Your task to perform on an android device: create a new album in the google photos Image 0: 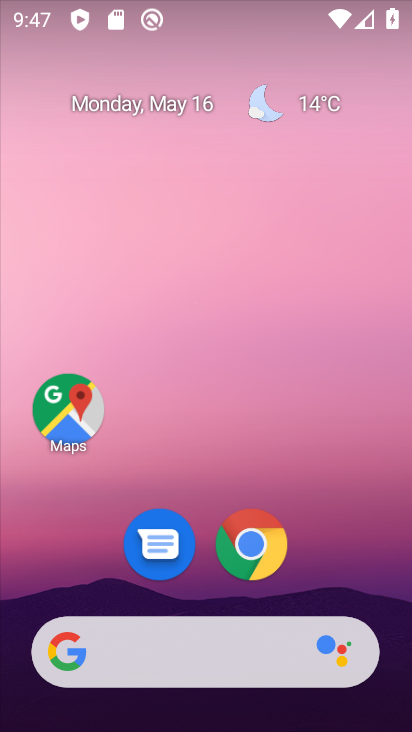
Step 0: drag from (344, 503) to (401, 185)
Your task to perform on an android device: create a new album in the google photos Image 1: 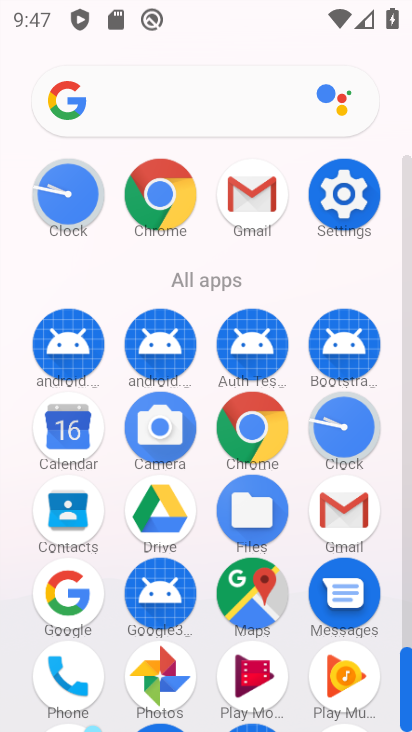
Step 1: click (161, 660)
Your task to perform on an android device: create a new album in the google photos Image 2: 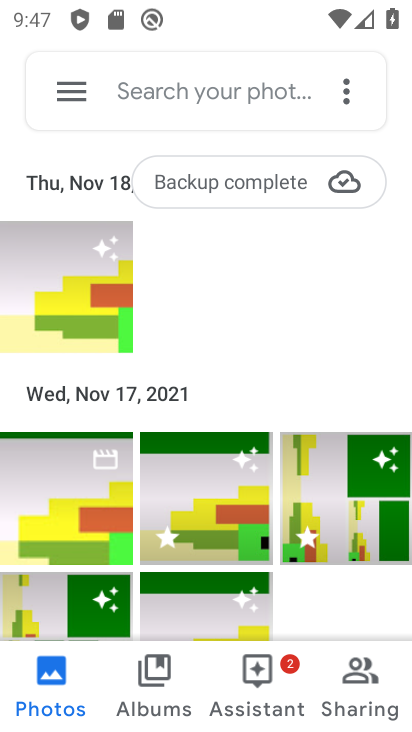
Step 2: click (375, 680)
Your task to perform on an android device: create a new album in the google photos Image 3: 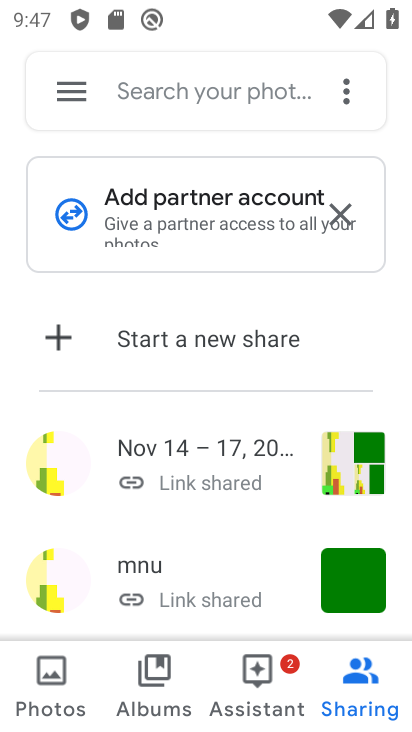
Step 3: click (342, 93)
Your task to perform on an android device: create a new album in the google photos Image 4: 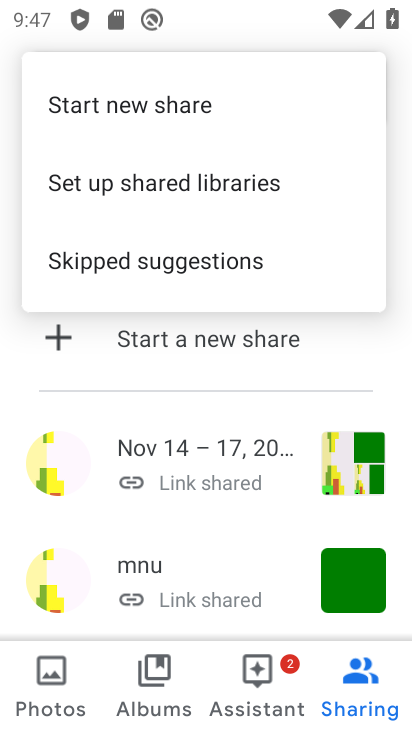
Step 4: click (150, 669)
Your task to perform on an android device: create a new album in the google photos Image 5: 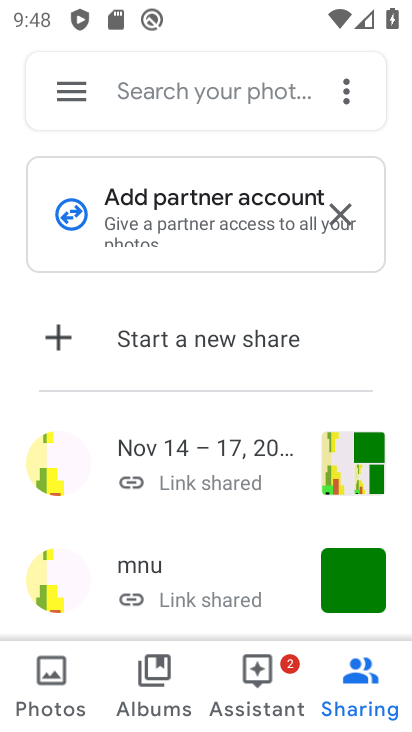
Step 5: click (164, 672)
Your task to perform on an android device: create a new album in the google photos Image 6: 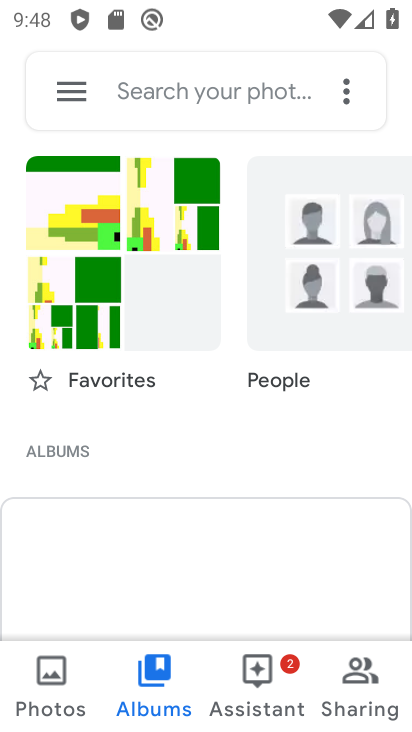
Step 6: drag from (247, 564) to (303, 278)
Your task to perform on an android device: create a new album in the google photos Image 7: 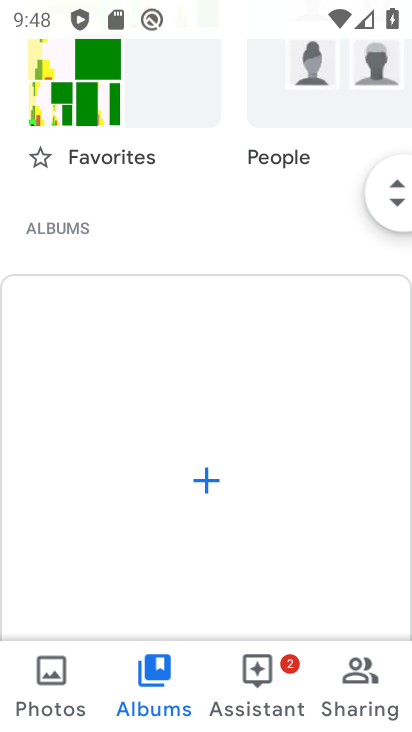
Step 7: click (211, 479)
Your task to perform on an android device: create a new album in the google photos Image 8: 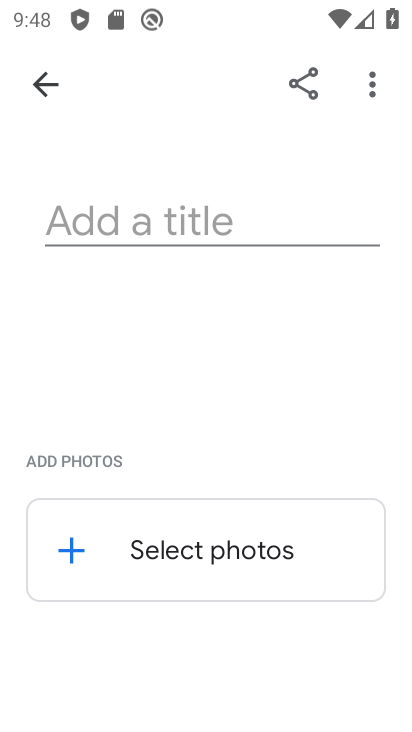
Step 8: click (203, 228)
Your task to perform on an android device: create a new album in the google photos Image 9: 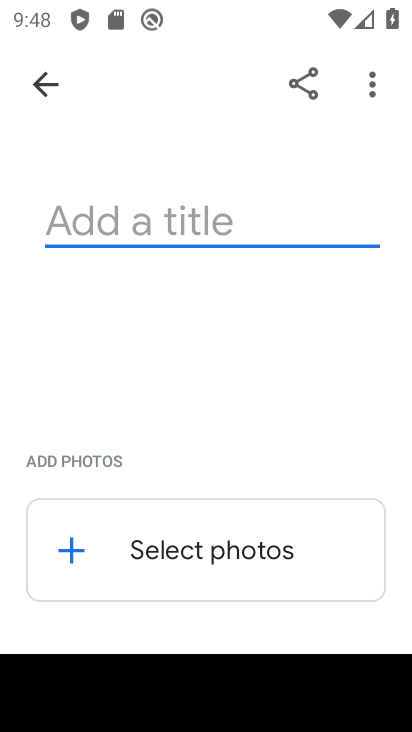
Step 9: type "gjhjgg"
Your task to perform on an android device: create a new album in the google photos Image 10: 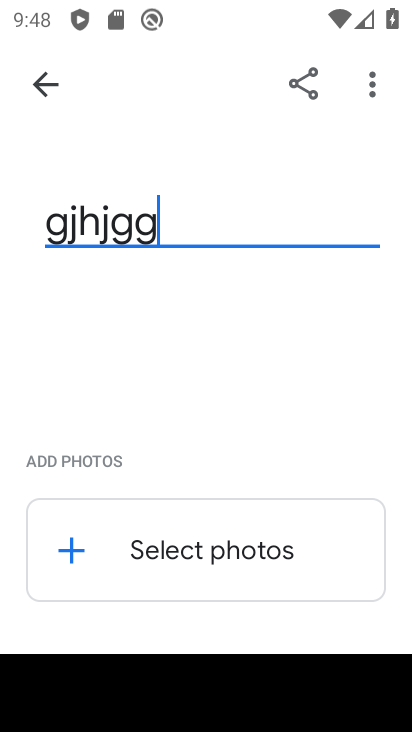
Step 10: click (91, 557)
Your task to perform on an android device: create a new album in the google photos Image 11: 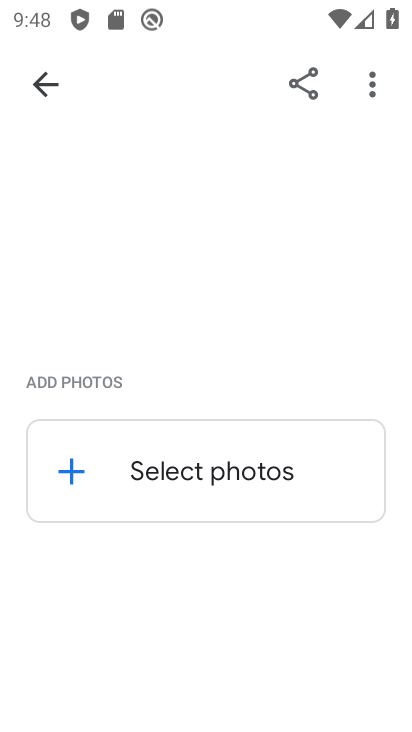
Step 11: click (122, 483)
Your task to perform on an android device: create a new album in the google photos Image 12: 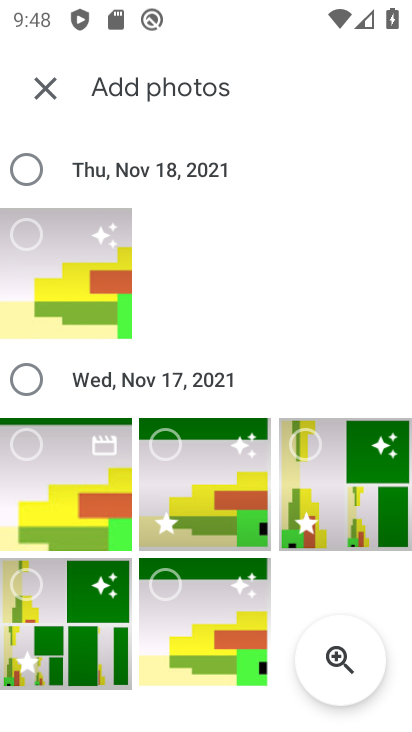
Step 12: click (84, 266)
Your task to perform on an android device: create a new album in the google photos Image 13: 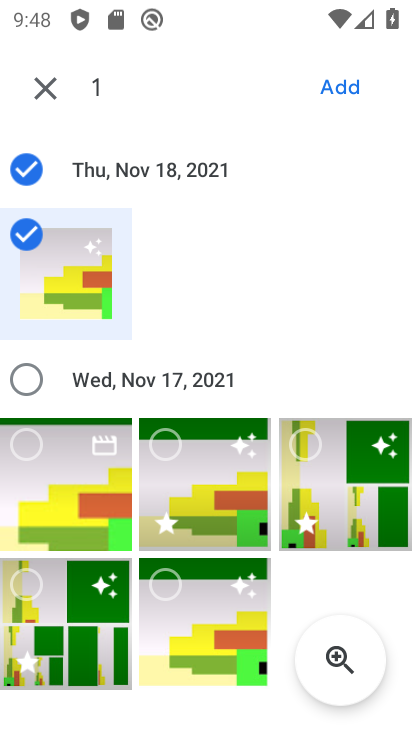
Step 13: click (23, 231)
Your task to perform on an android device: create a new album in the google photos Image 14: 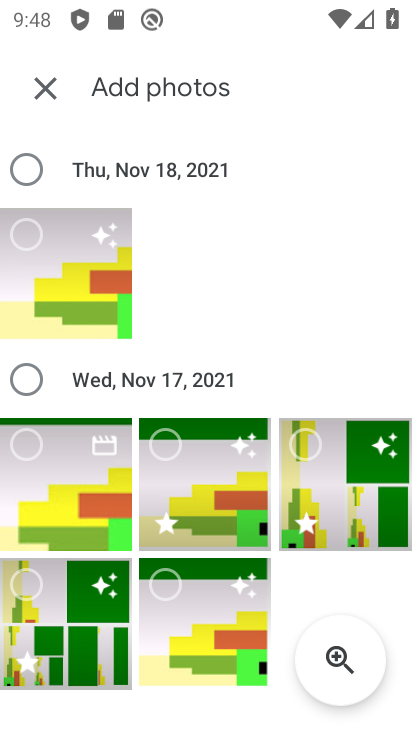
Step 14: click (32, 237)
Your task to perform on an android device: create a new album in the google photos Image 15: 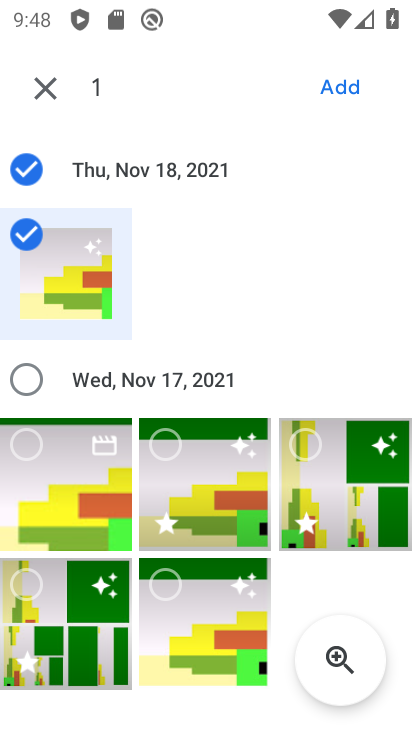
Step 15: click (352, 91)
Your task to perform on an android device: create a new album in the google photos Image 16: 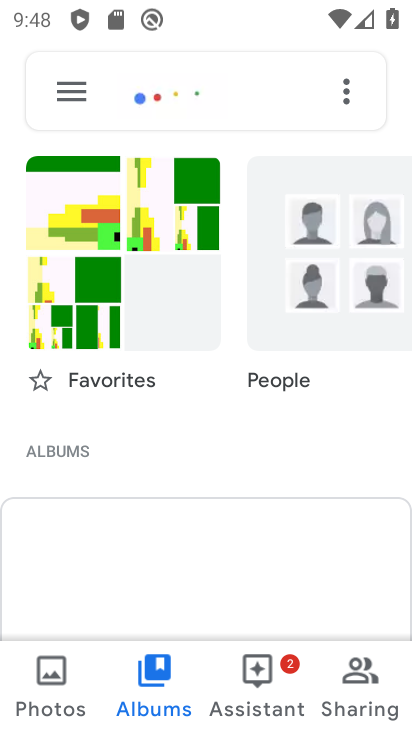
Step 16: task complete